Your task to perform on an android device: set the stopwatch Image 0: 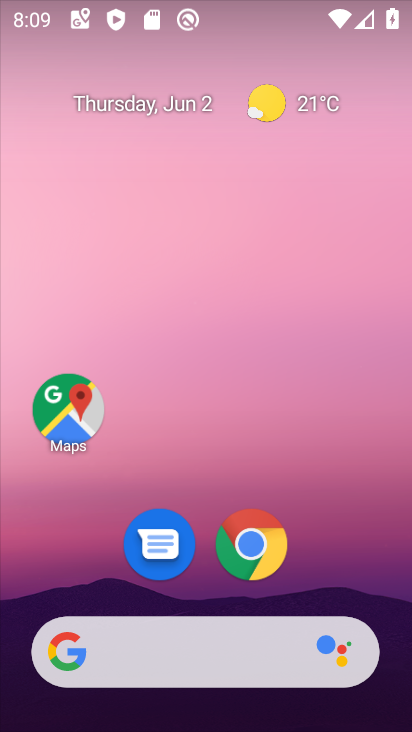
Step 0: click (305, 115)
Your task to perform on an android device: set the stopwatch Image 1: 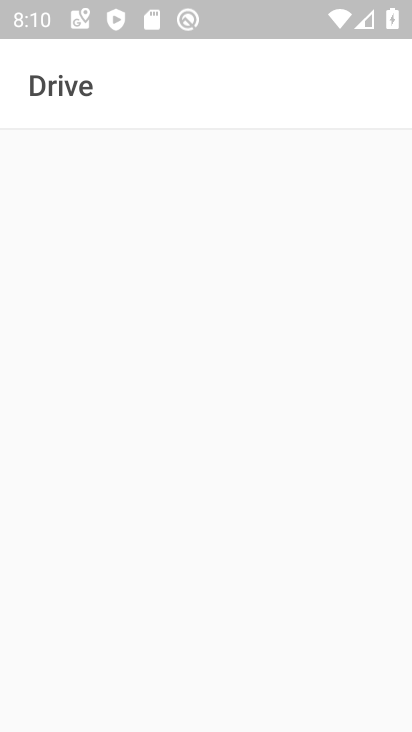
Step 1: press home button
Your task to perform on an android device: set the stopwatch Image 2: 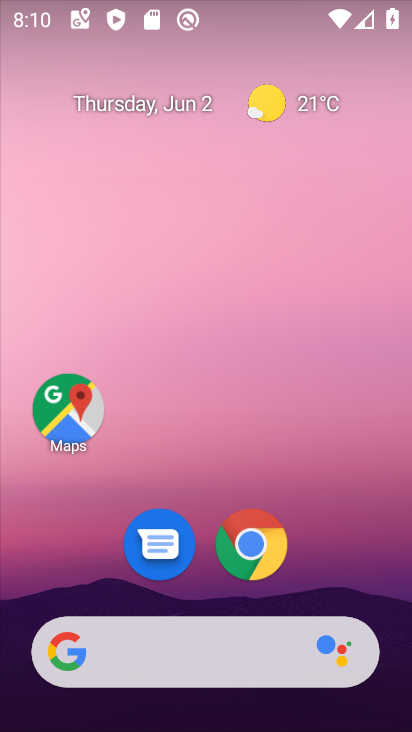
Step 2: drag from (390, 598) to (331, 225)
Your task to perform on an android device: set the stopwatch Image 3: 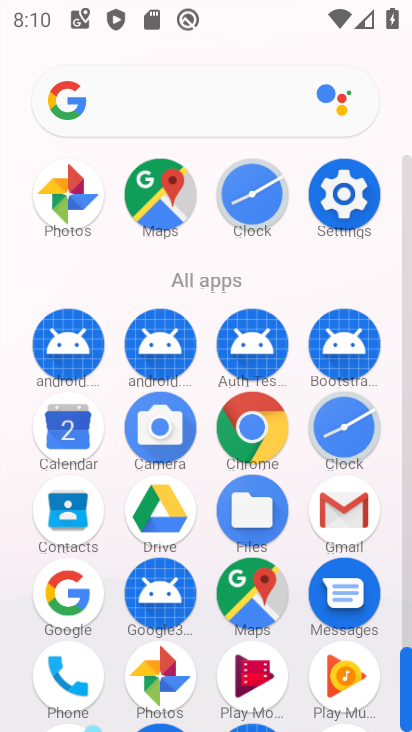
Step 3: click (329, 434)
Your task to perform on an android device: set the stopwatch Image 4: 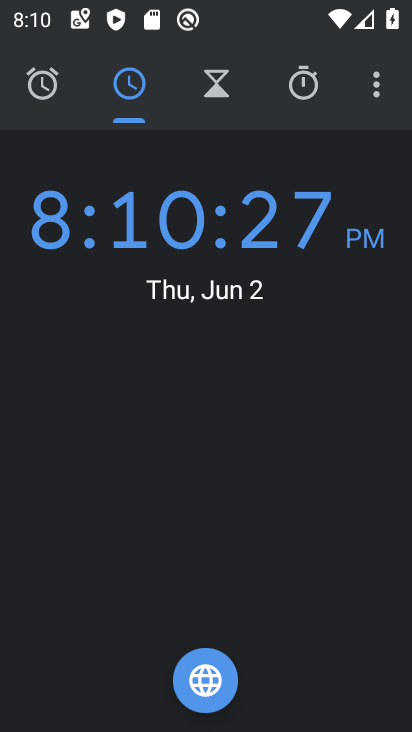
Step 4: click (309, 101)
Your task to perform on an android device: set the stopwatch Image 5: 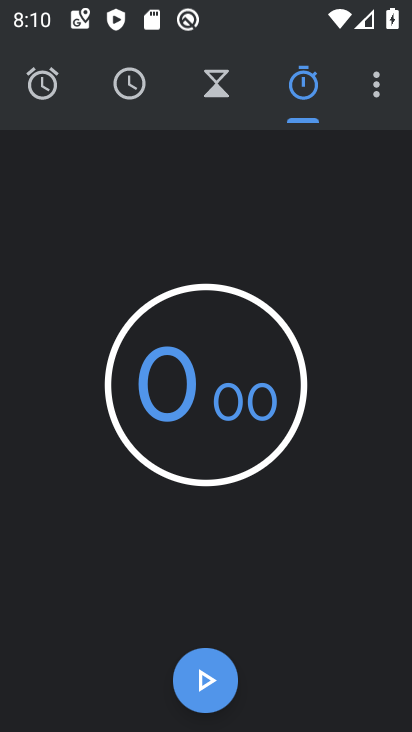
Step 5: click (211, 671)
Your task to perform on an android device: set the stopwatch Image 6: 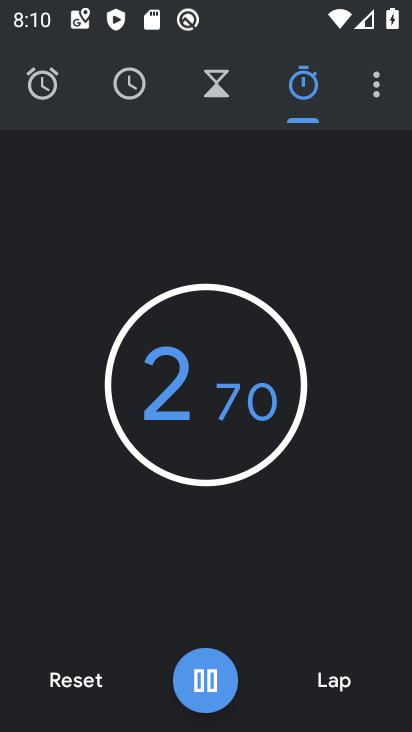
Step 6: task complete